Your task to perform on an android device: delete the emails in spam in the gmail app Image 0: 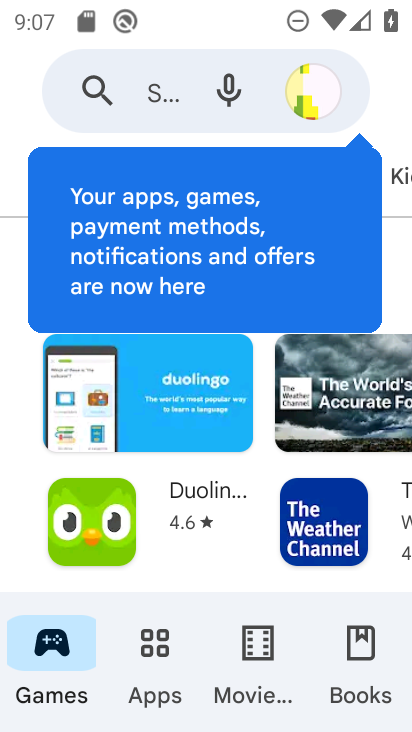
Step 0: press home button
Your task to perform on an android device: delete the emails in spam in the gmail app Image 1: 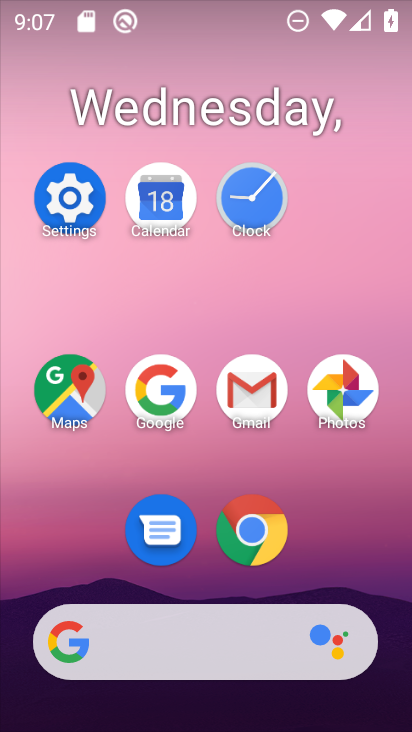
Step 1: click (263, 396)
Your task to perform on an android device: delete the emails in spam in the gmail app Image 2: 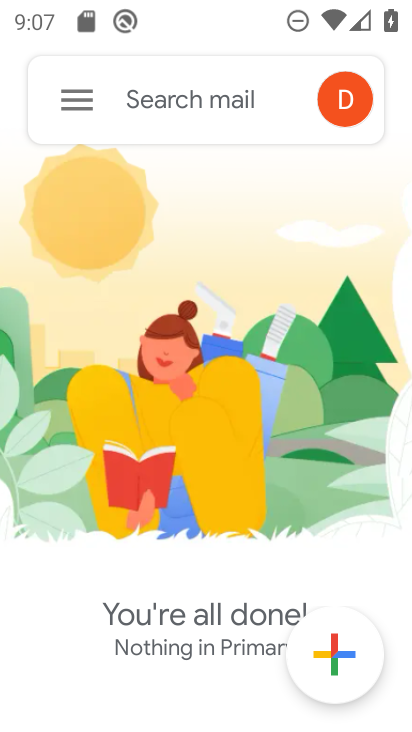
Step 2: click (63, 93)
Your task to perform on an android device: delete the emails in spam in the gmail app Image 3: 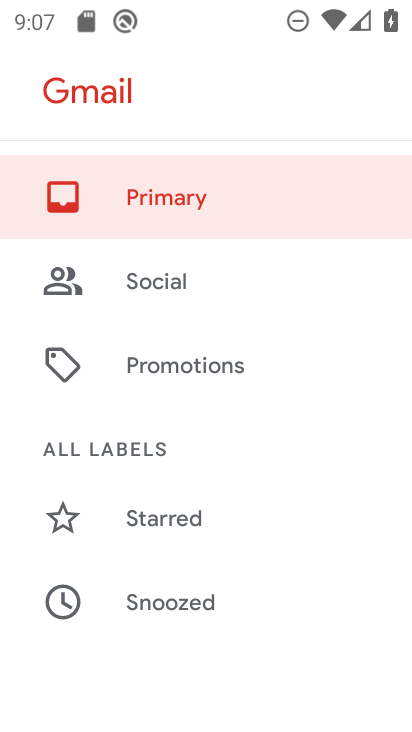
Step 3: drag from (203, 563) to (296, 209)
Your task to perform on an android device: delete the emails in spam in the gmail app Image 4: 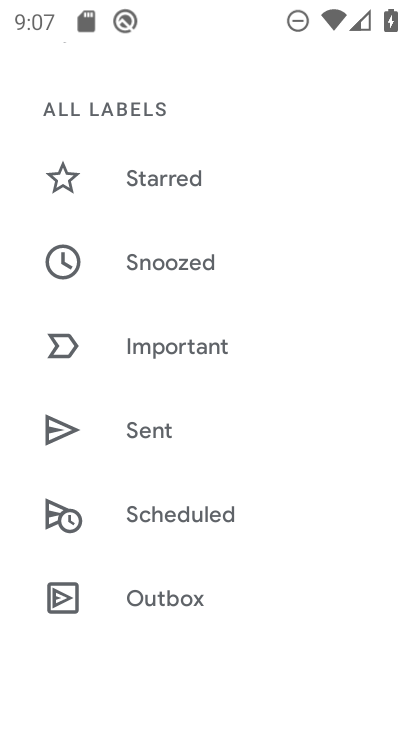
Step 4: drag from (290, 514) to (326, 170)
Your task to perform on an android device: delete the emails in spam in the gmail app Image 5: 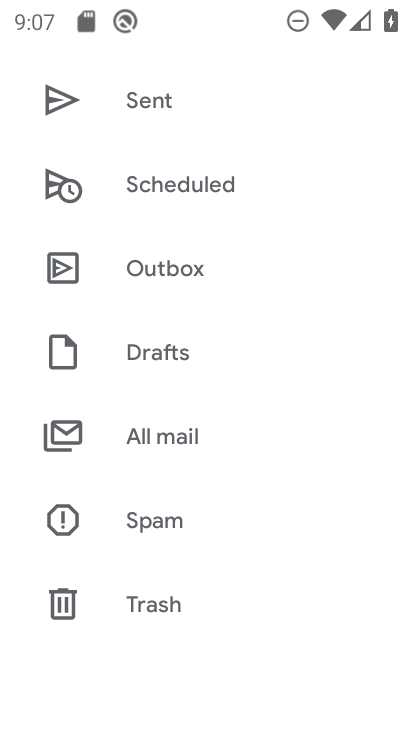
Step 5: click (260, 429)
Your task to perform on an android device: delete the emails in spam in the gmail app Image 6: 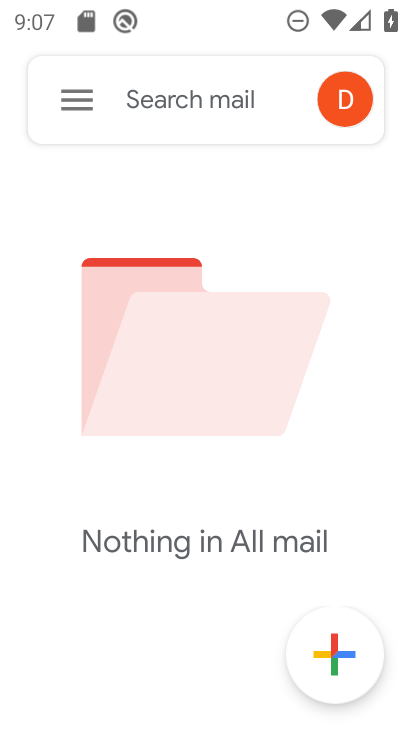
Step 6: task complete